Your task to perform on an android device: change notifications settings Image 0: 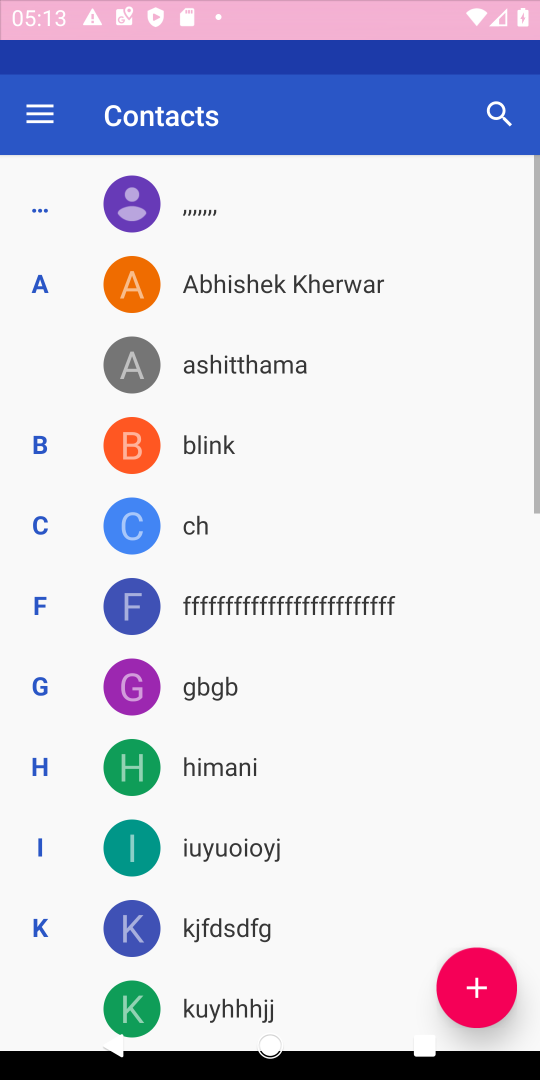
Step 0: press home button
Your task to perform on an android device: change notifications settings Image 1: 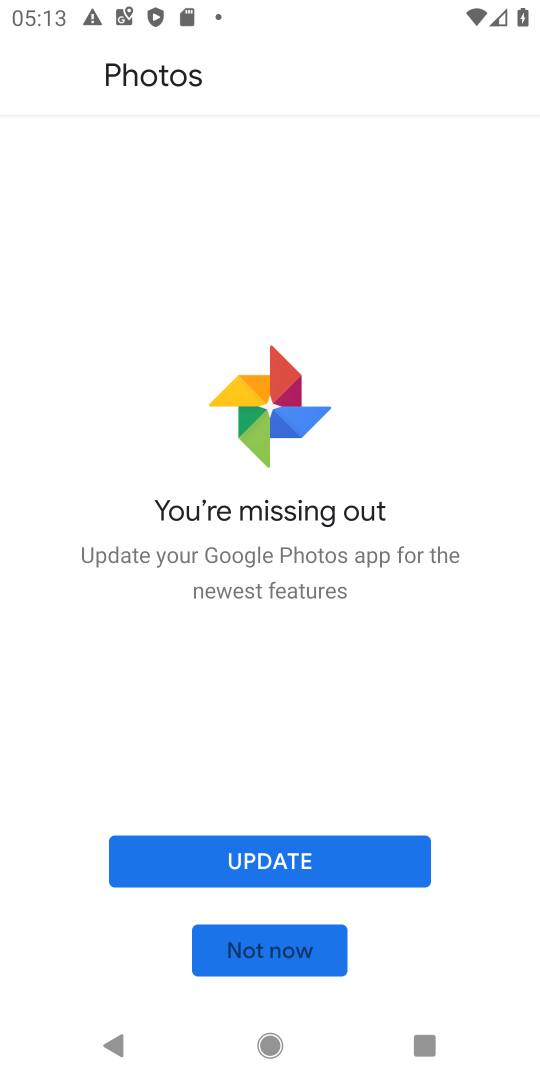
Step 1: press home button
Your task to perform on an android device: change notifications settings Image 2: 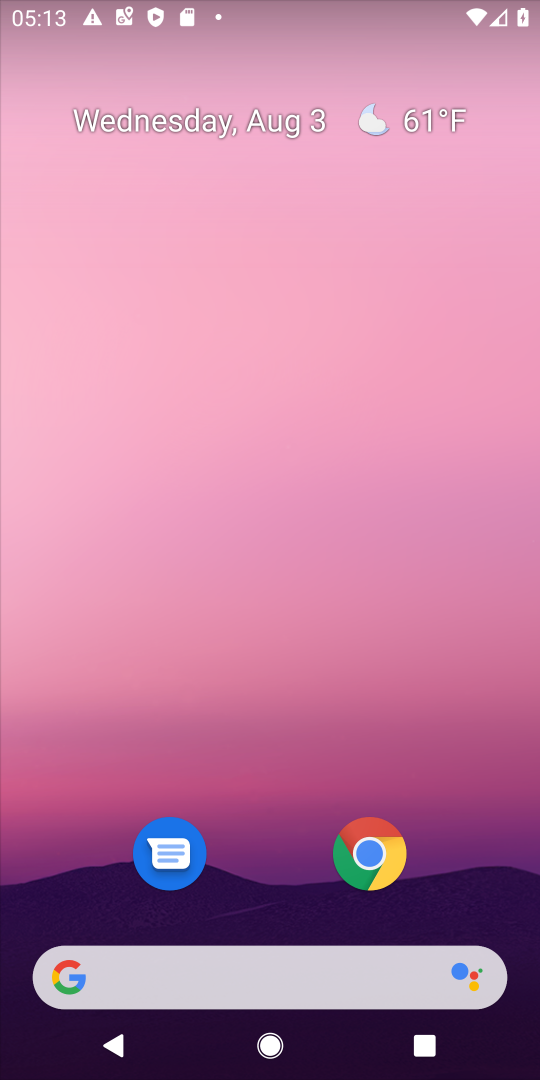
Step 2: drag from (276, 801) to (281, 4)
Your task to perform on an android device: change notifications settings Image 3: 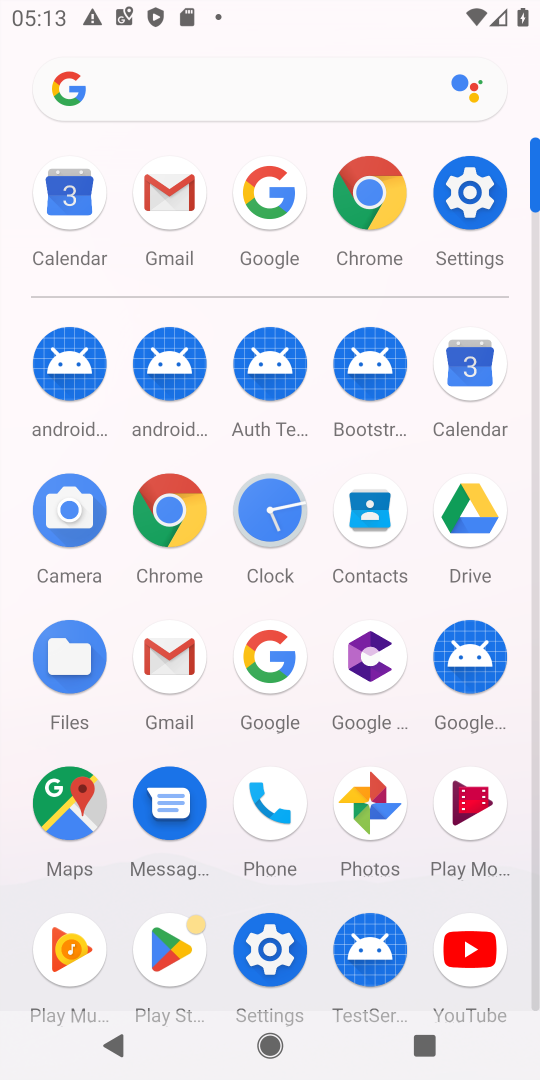
Step 3: click (467, 184)
Your task to perform on an android device: change notifications settings Image 4: 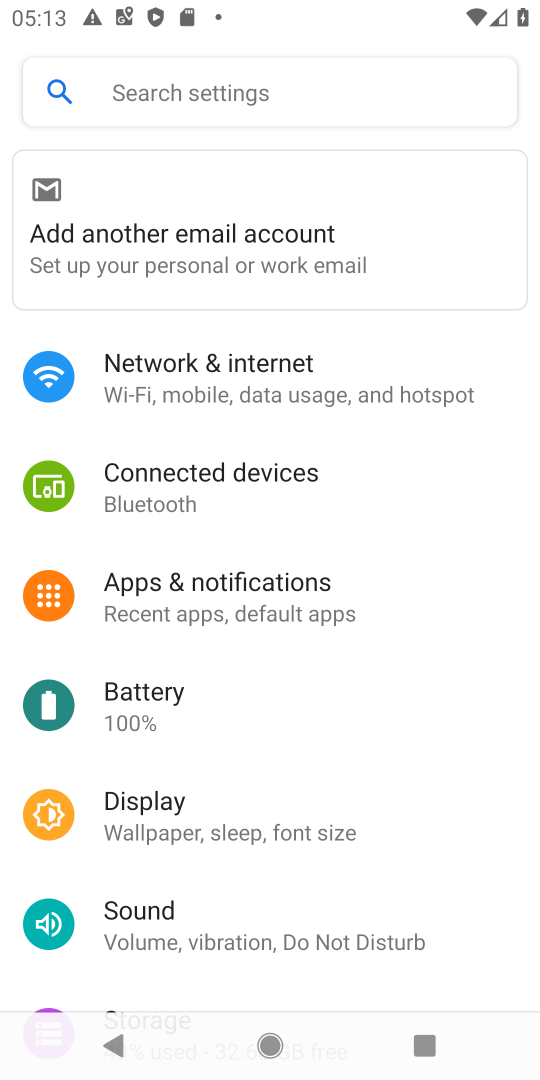
Step 4: click (156, 603)
Your task to perform on an android device: change notifications settings Image 5: 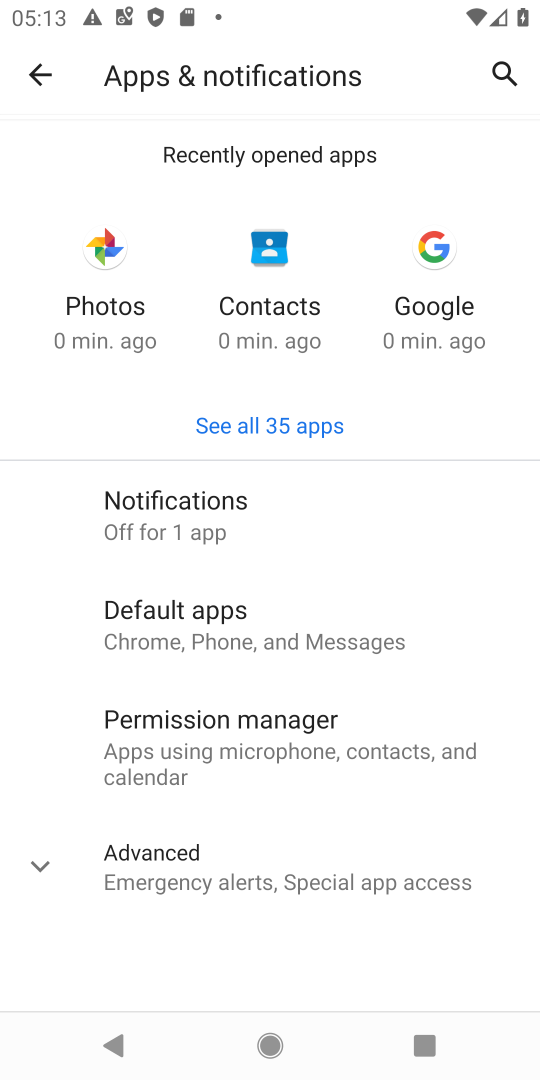
Step 5: click (143, 511)
Your task to perform on an android device: change notifications settings Image 6: 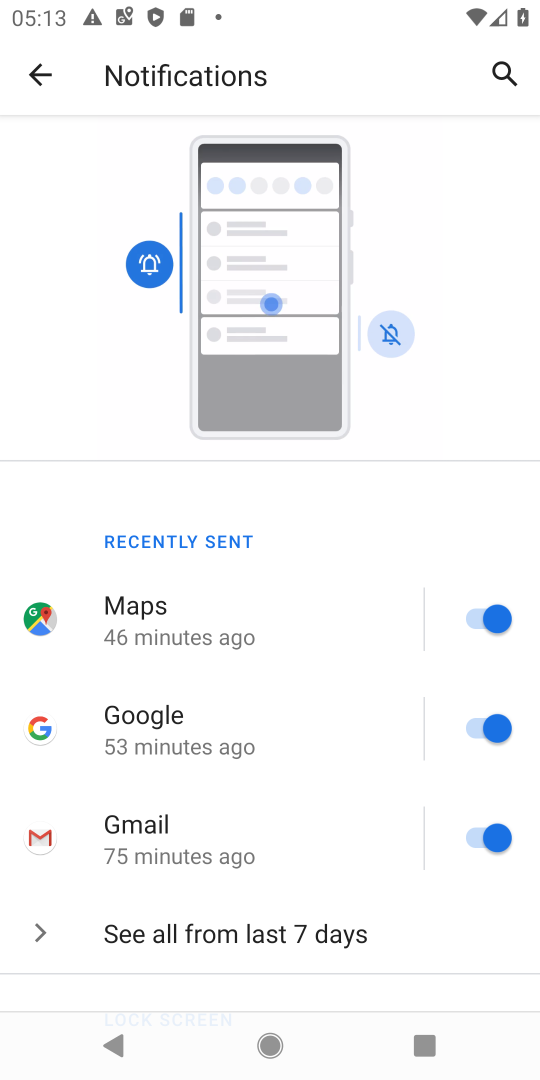
Step 6: task complete